Your task to perform on an android device: uninstall "NewsBreak: Local News & Alerts" Image 0: 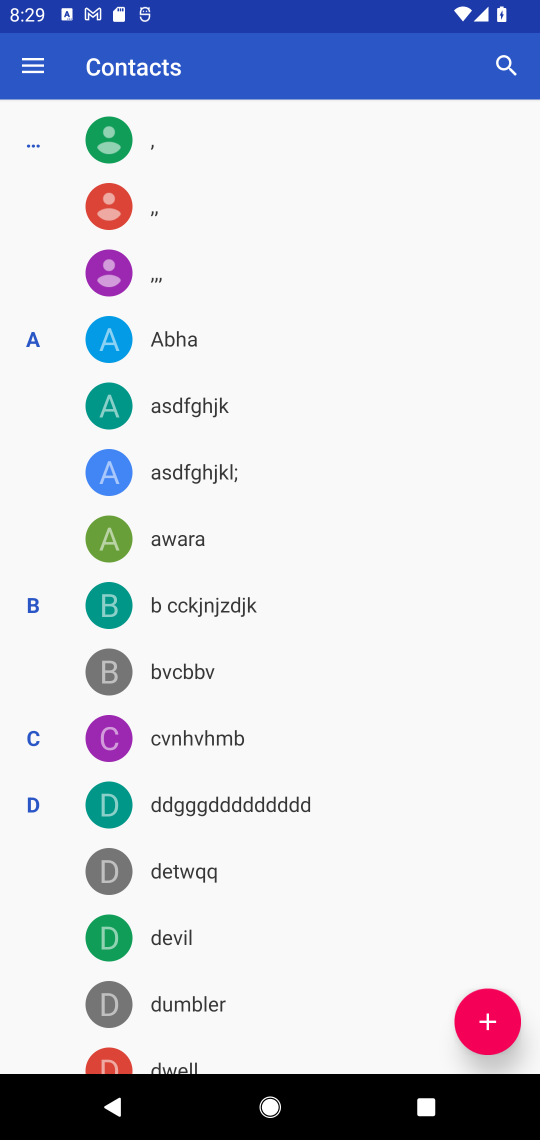
Step 0: press back button
Your task to perform on an android device: uninstall "NewsBreak: Local News & Alerts" Image 1: 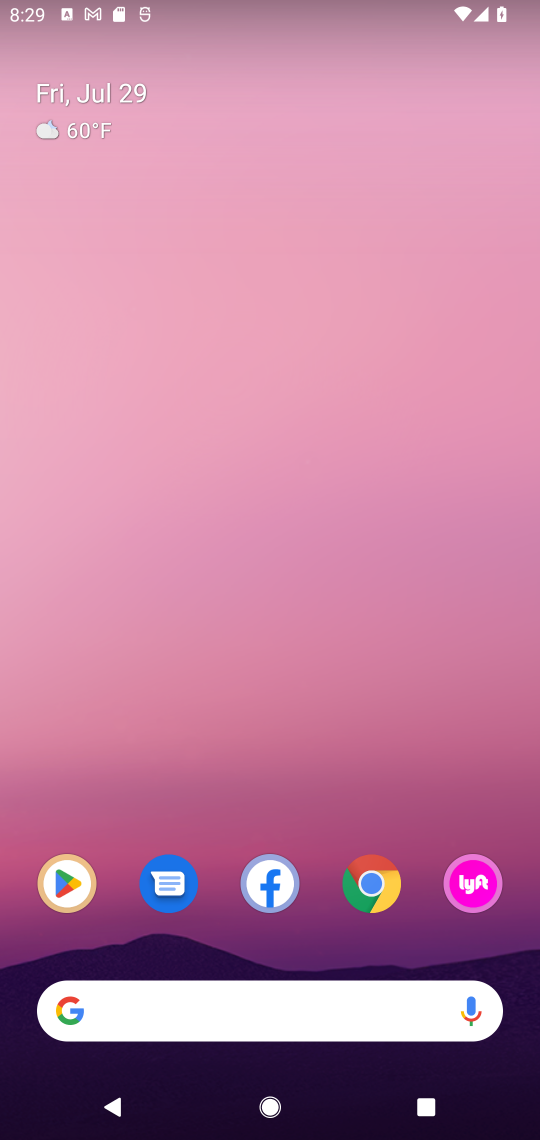
Step 1: click (93, 877)
Your task to perform on an android device: uninstall "NewsBreak: Local News & Alerts" Image 2: 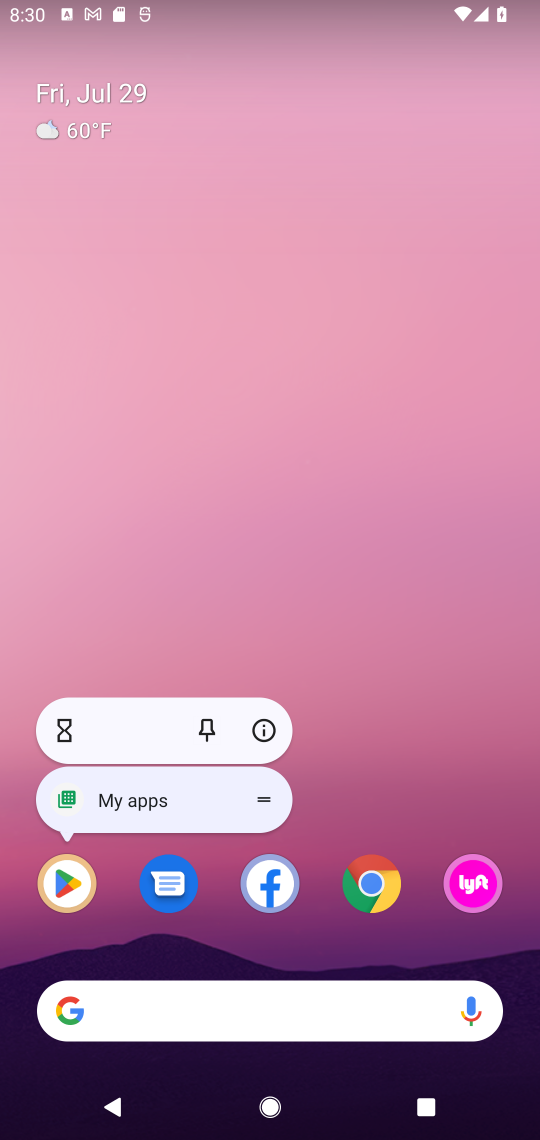
Step 2: click (65, 893)
Your task to perform on an android device: uninstall "NewsBreak: Local News & Alerts" Image 3: 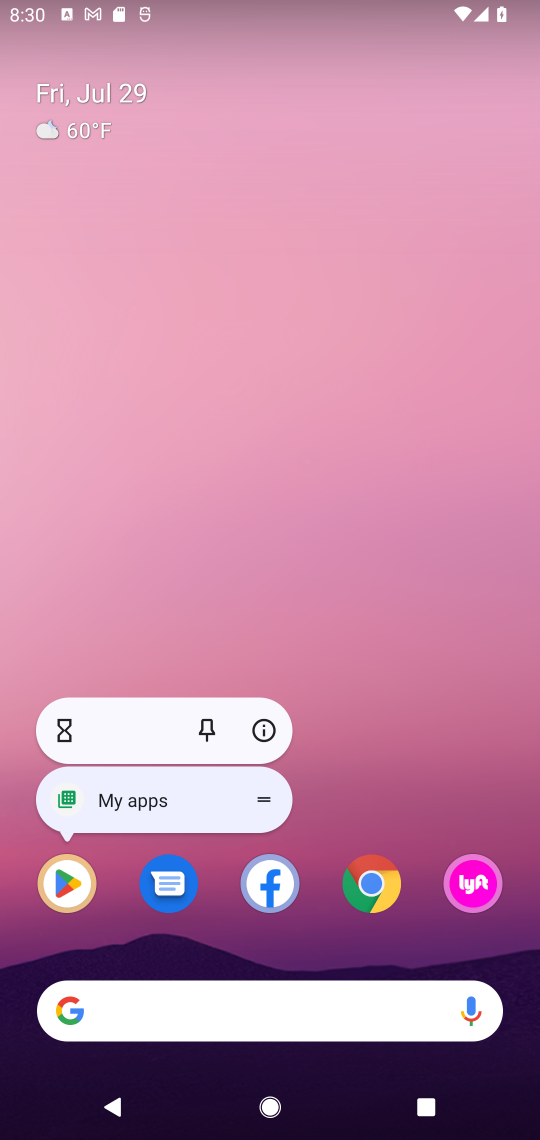
Step 3: click (65, 893)
Your task to perform on an android device: uninstall "NewsBreak: Local News & Alerts" Image 4: 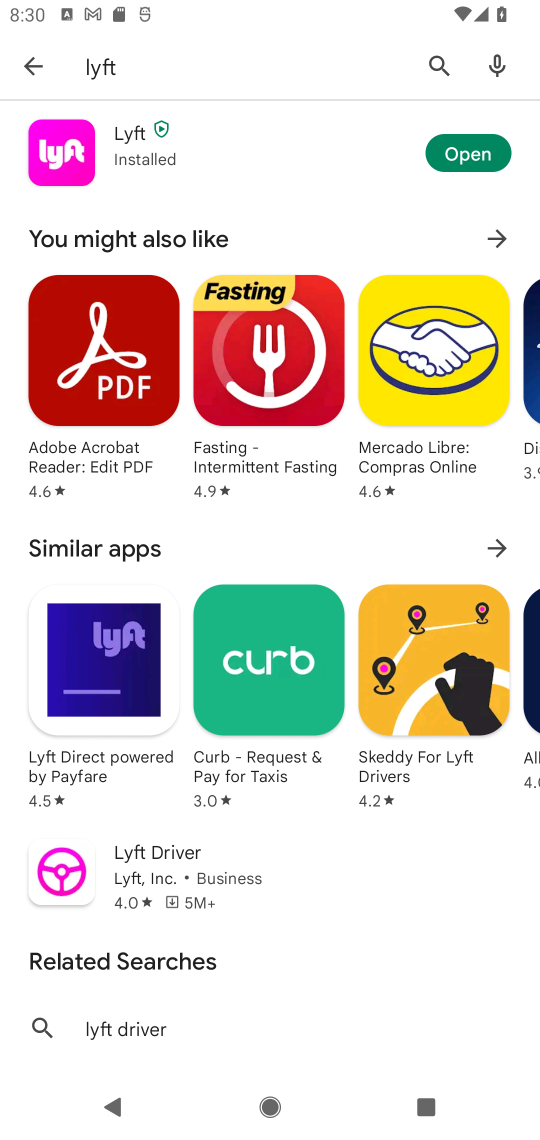
Step 4: click (435, 66)
Your task to perform on an android device: uninstall "NewsBreak: Local News & Alerts" Image 5: 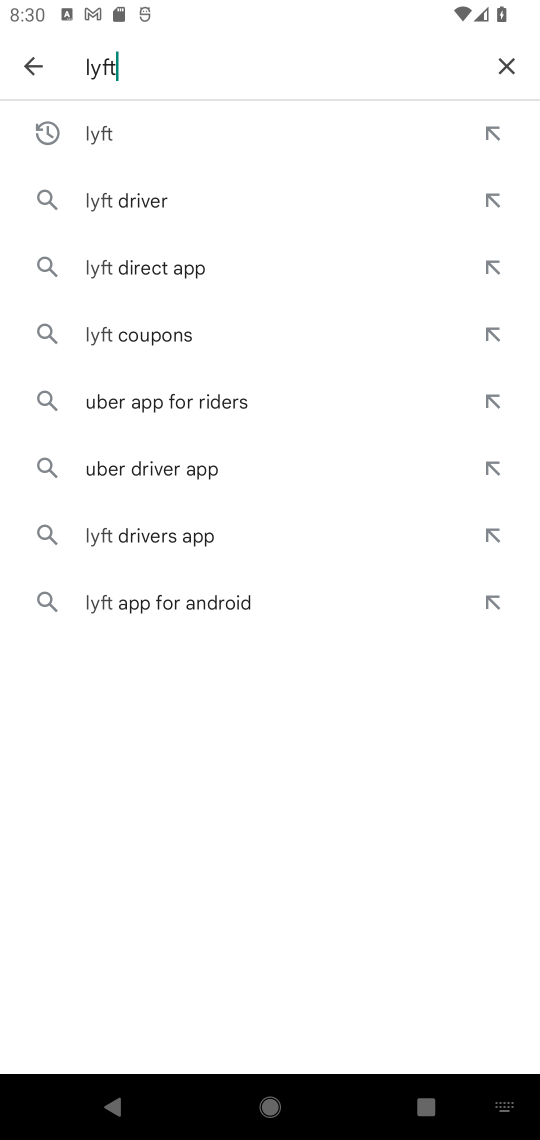
Step 5: click (505, 57)
Your task to perform on an android device: uninstall "NewsBreak: Local News & Alerts" Image 6: 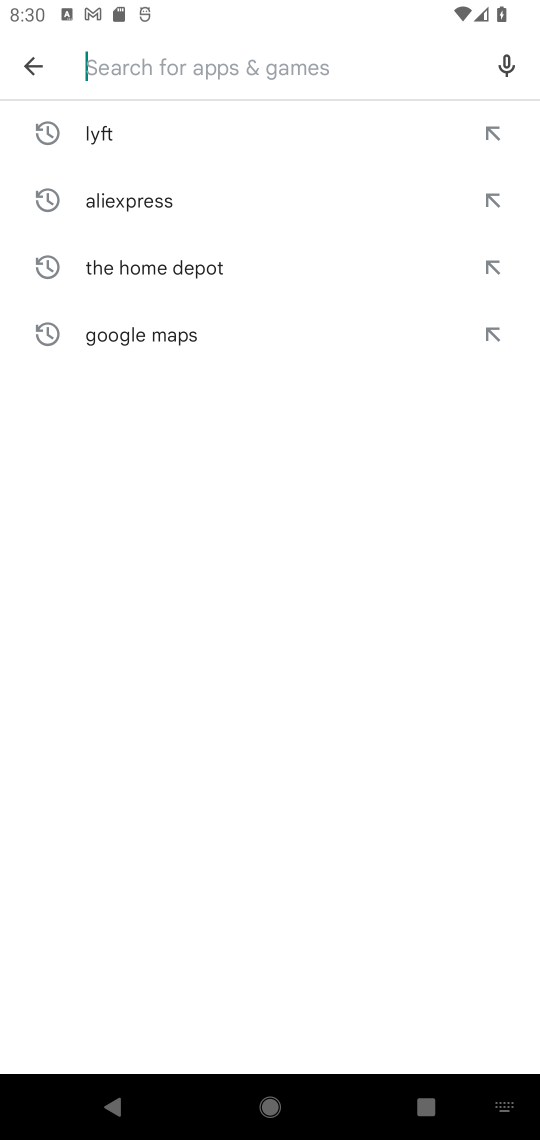
Step 6: click (118, 84)
Your task to perform on an android device: uninstall "NewsBreak: Local News & Alerts" Image 7: 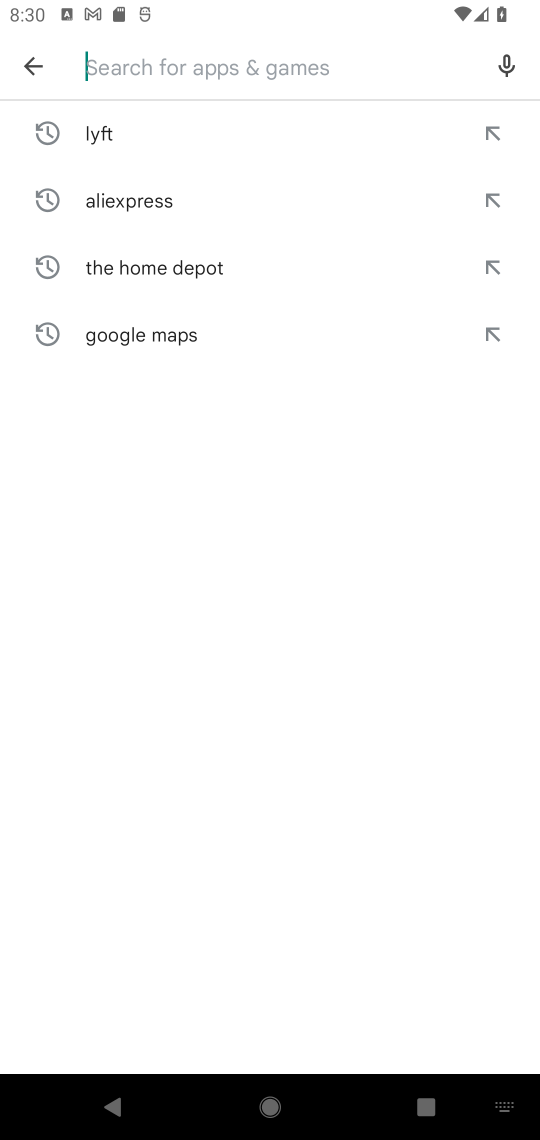
Step 7: type "news break"
Your task to perform on an android device: uninstall "NewsBreak: Local News & Alerts" Image 8: 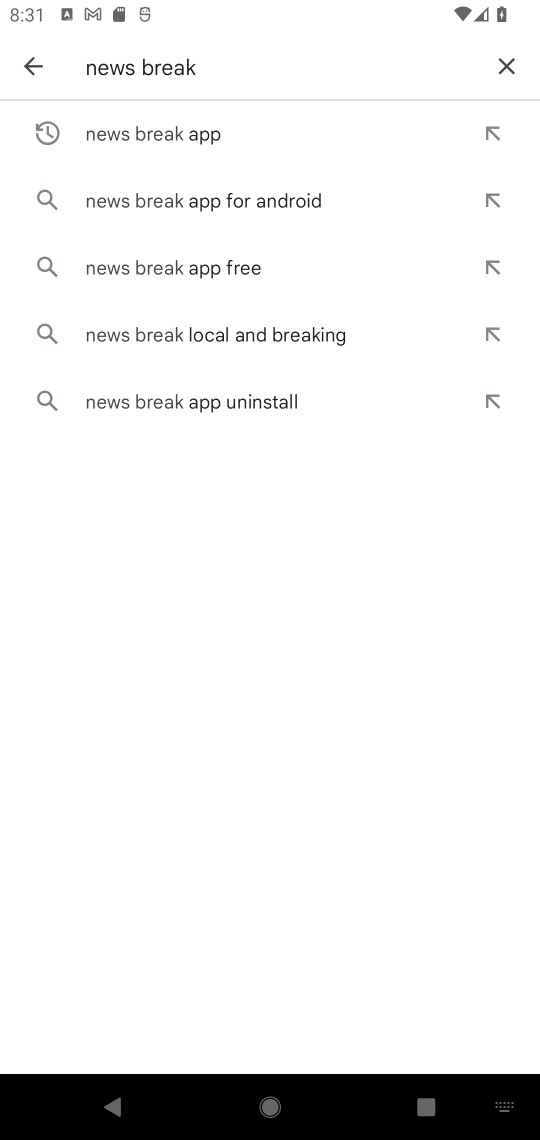
Step 8: click (174, 140)
Your task to perform on an android device: uninstall "NewsBreak: Local News & Alerts" Image 9: 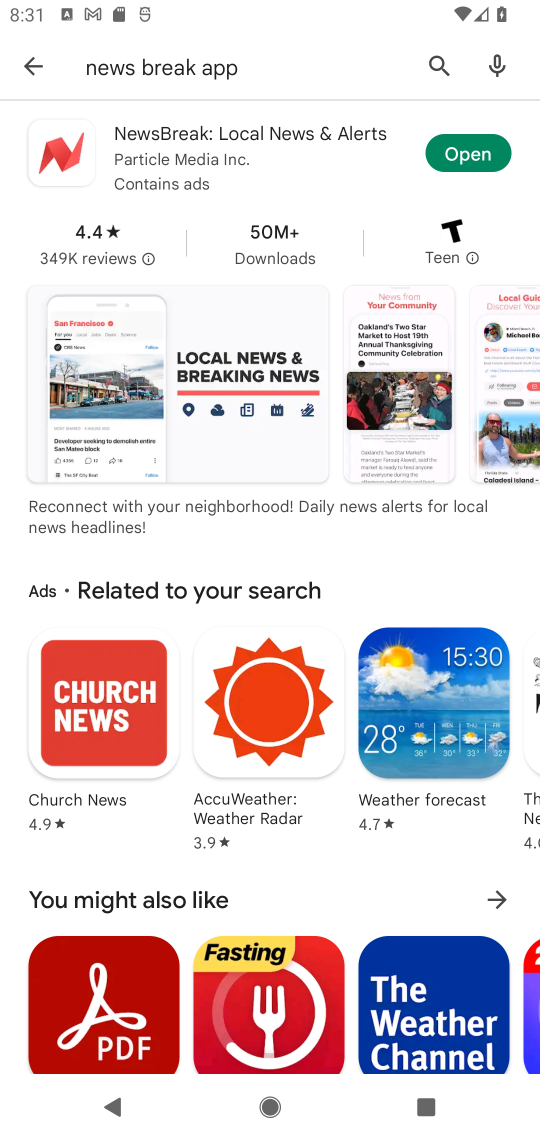
Step 9: click (233, 159)
Your task to perform on an android device: uninstall "NewsBreak: Local News & Alerts" Image 10: 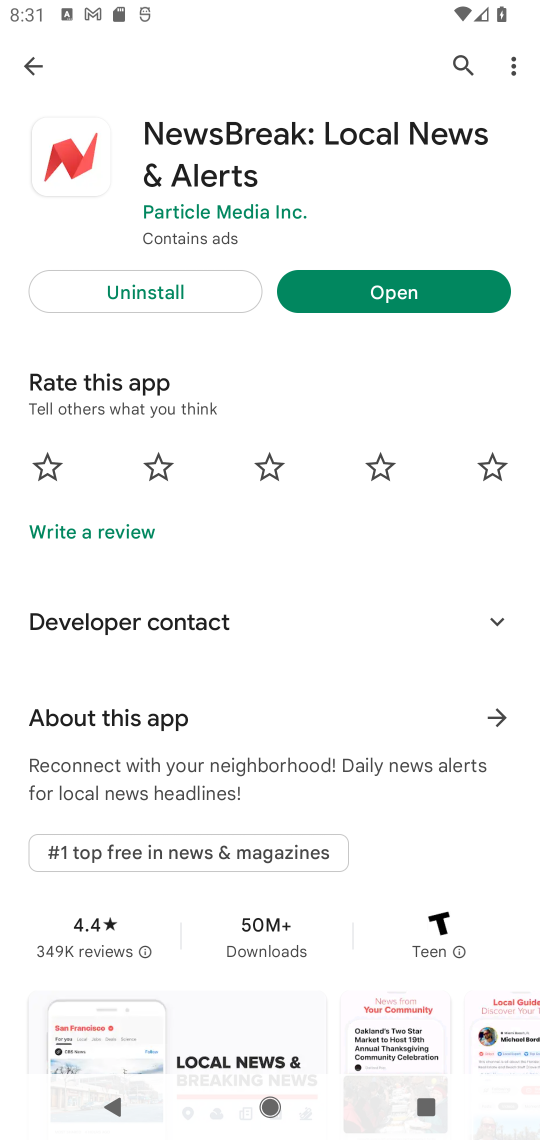
Step 10: click (167, 304)
Your task to perform on an android device: uninstall "NewsBreak: Local News & Alerts" Image 11: 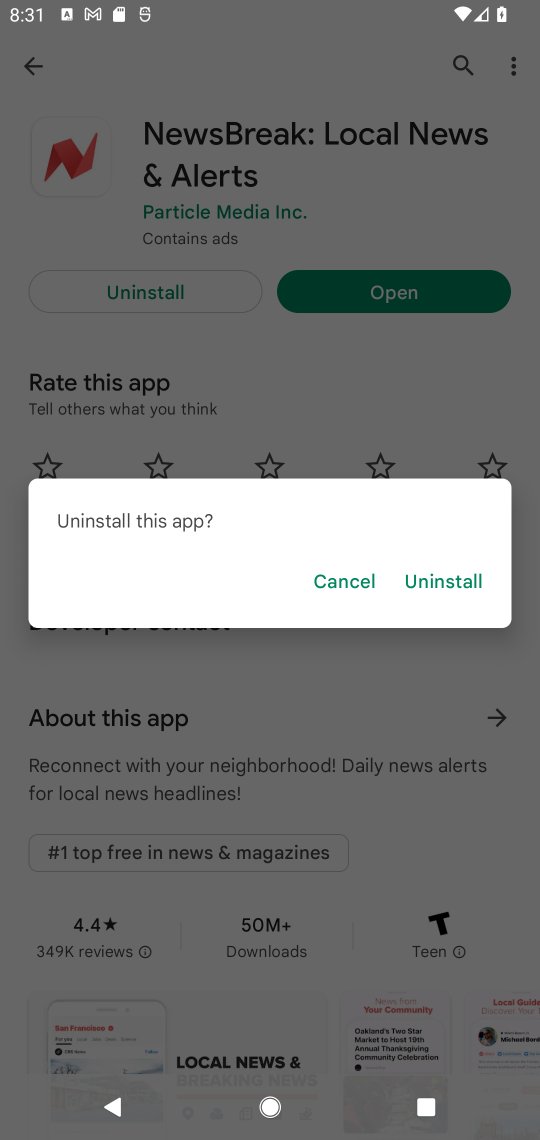
Step 11: click (437, 585)
Your task to perform on an android device: uninstall "NewsBreak: Local News & Alerts" Image 12: 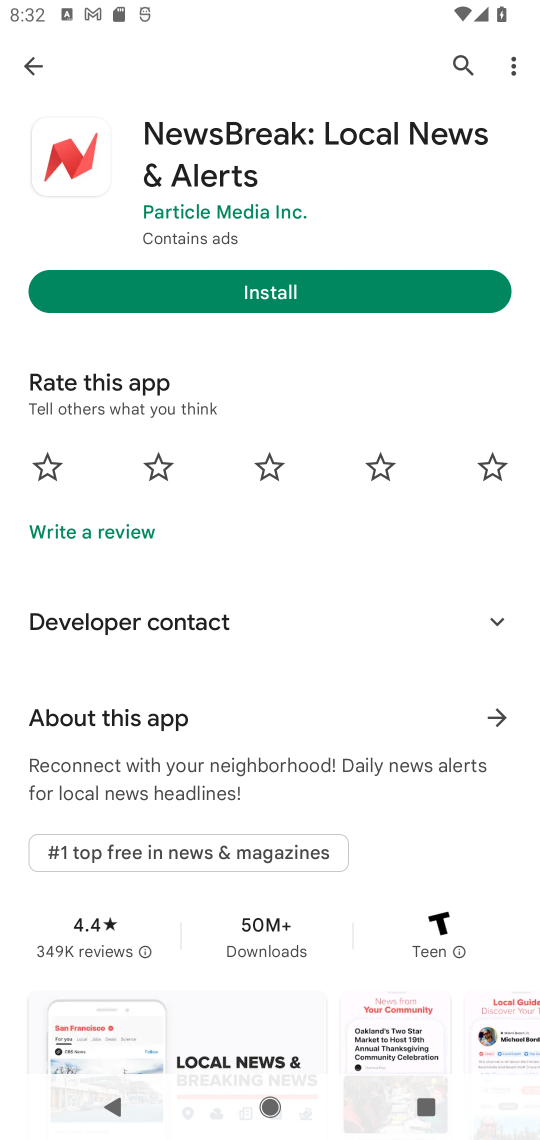
Step 12: task complete